Your task to perform on an android device: Open sound settings Image 0: 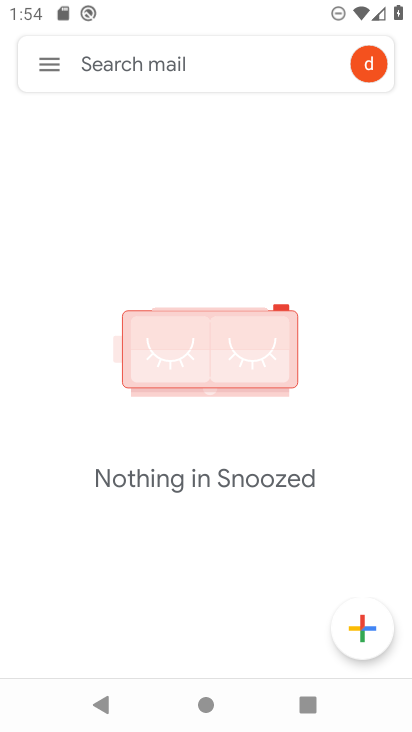
Step 0: press home button
Your task to perform on an android device: Open sound settings Image 1: 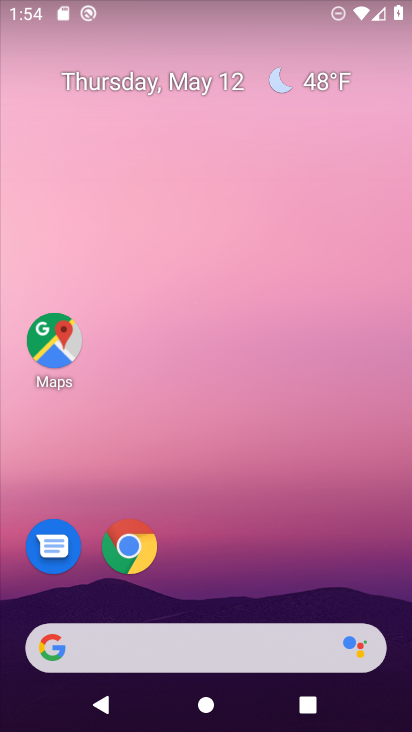
Step 1: drag from (296, 670) to (271, 285)
Your task to perform on an android device: Open sound settings Image 2: 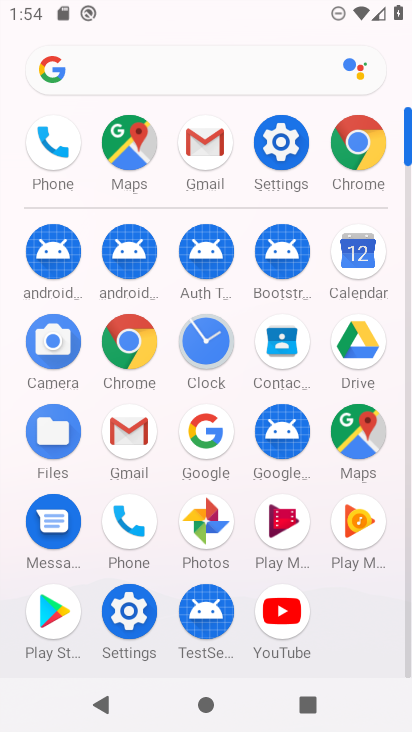
Step 2: click (273, 162)
Your task to perform on an android device: Open sound settings Image 3: 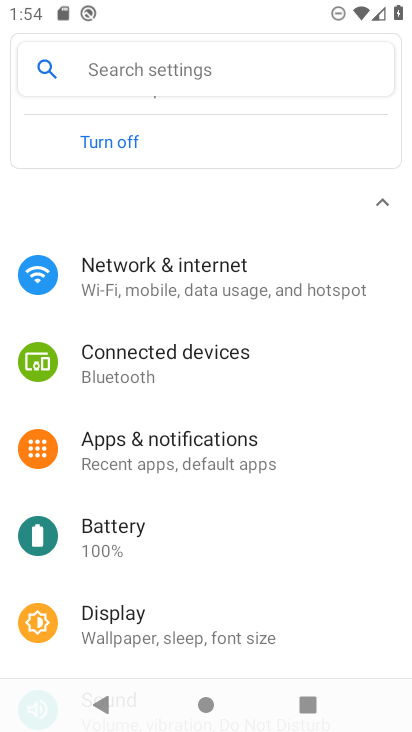
Step 3: drag from (157, 555) to (133, 311)
Your task to perform on an android device: Open sound settings Image 4: 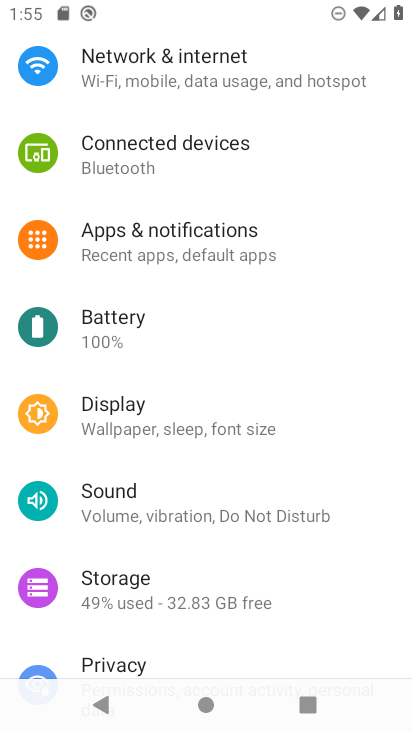
Step 4: click (137, 517)
Your task to perform on an android device: Open sound settings Image 5: 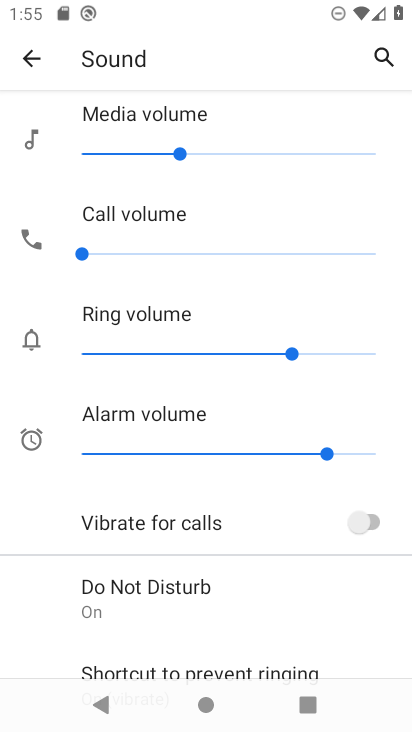
Step 5: task complete